Your task to perform on an android device: turn off notifications settings in the gmail app Image 0: 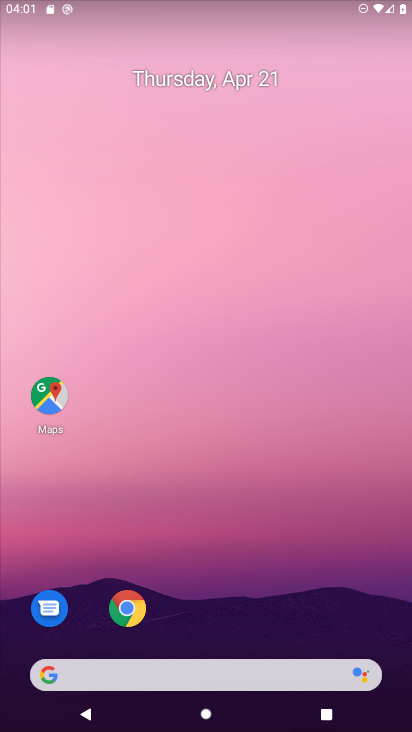
Step 0: drag from (283, 447) to (303, 162)
Your task to perform on an android device: turn off notifications settings in the gmail app Image 1: 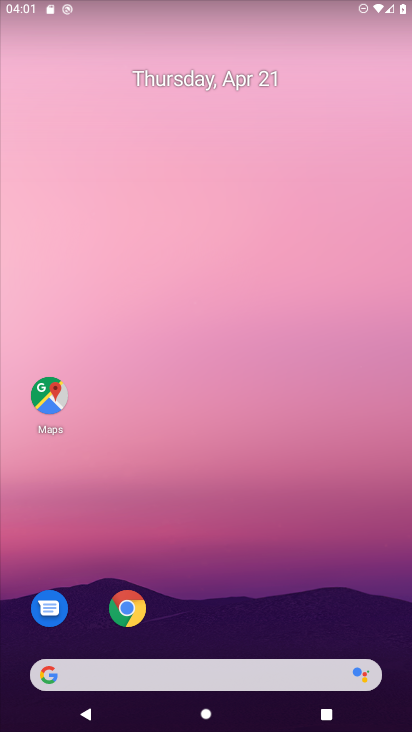
Step 1: drag from (275, 575) to (262, 167)
Your task to perform on an android device: turn off notifications settings in the gmail app Image 2: 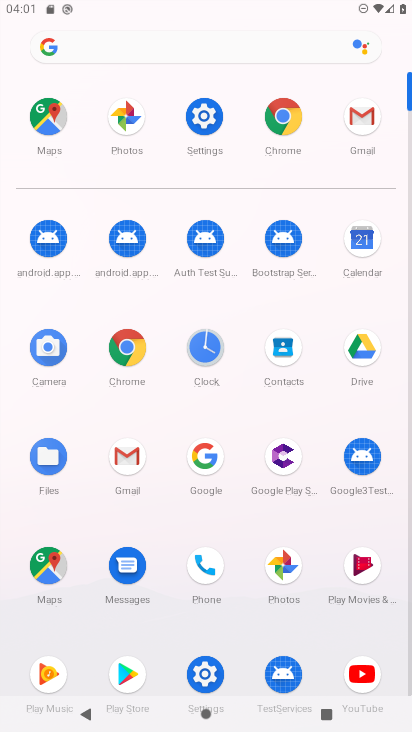
Step 2: click (121, 456)
Your task to perform on an android device: turn off notifications settings in the gmail app Image 3: 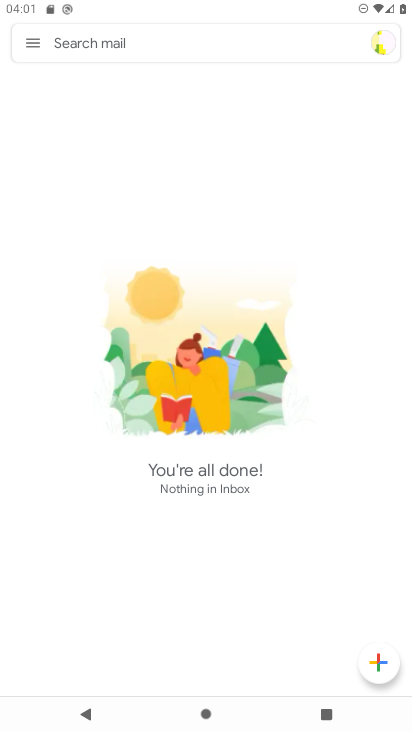
Step 3: click (31, 43)
Your task to perform on an android device: turn off notifications settings in the gmail app Image 4: 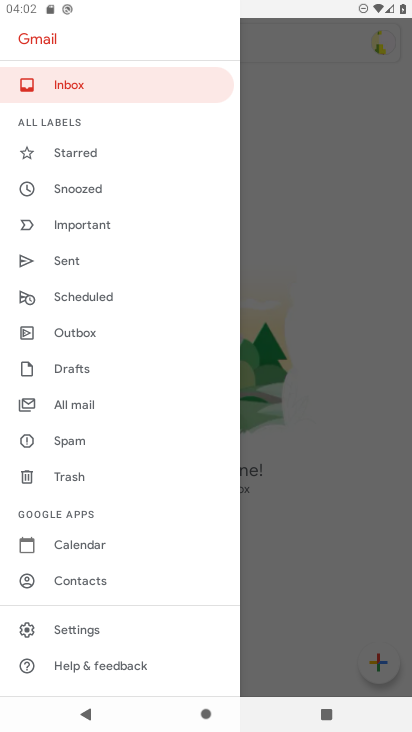
Step 4: click (90, 406)
Your task to perform on an android device: turn off notifications settings in the gmail app Image 5: 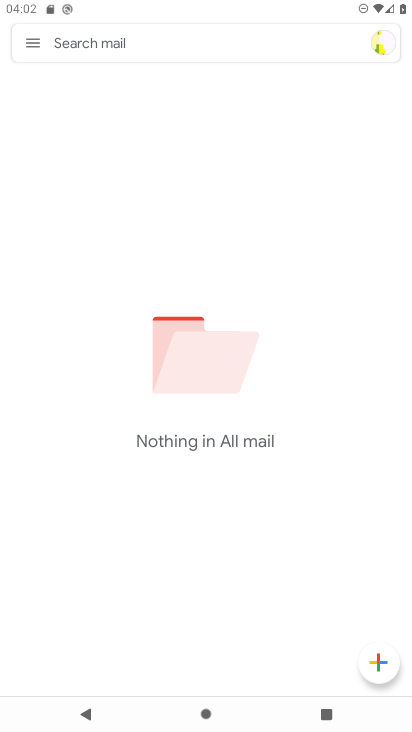
Step 5: click (29, 45)
Your task to perform on an android device: turn off notifications settings in the gmail app Image 6: 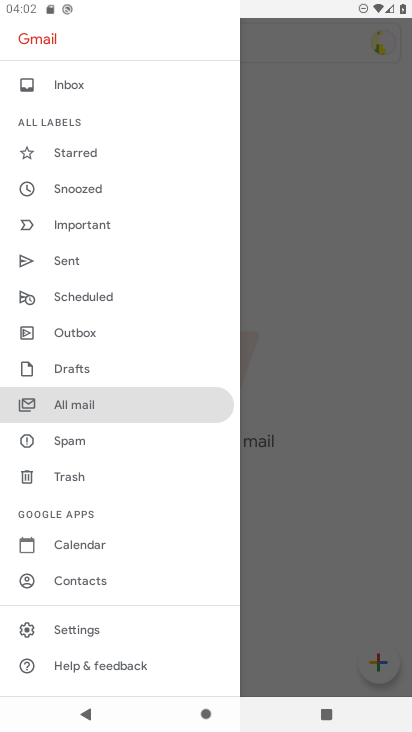
Step 6: click (103, 624)
Your task to perform on an android device: turn off notifications settings in the gmail app Image 7: 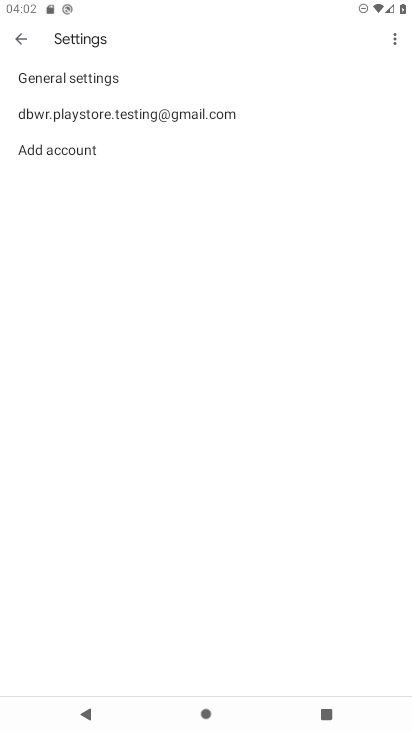
Step 7: click (214, 114)
Your task to perform on an android device: turn off notifications settings in the gmail app Image 8: 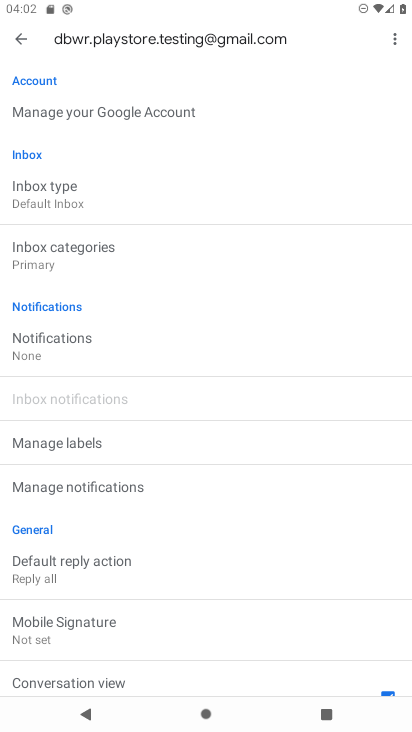
Step 8: click (120, 346)
Your task to perform on an android device: turn off notifications settings in the gmail app Image 9: 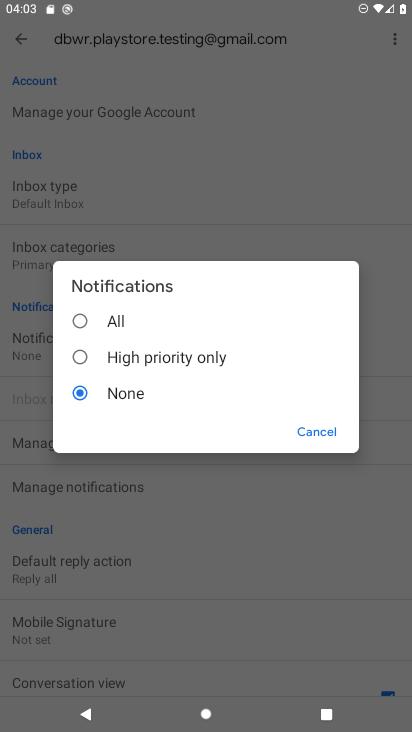
Step 9: task complete